Your task to perform on an android device: Open display settings Image 0: 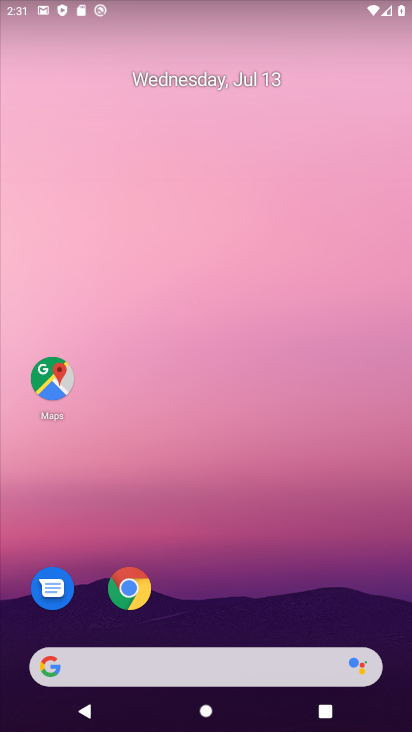
Step 0: drag from (214, 606) to (43, 15)
Your task to perform on an android device: Open display settings Image 1: 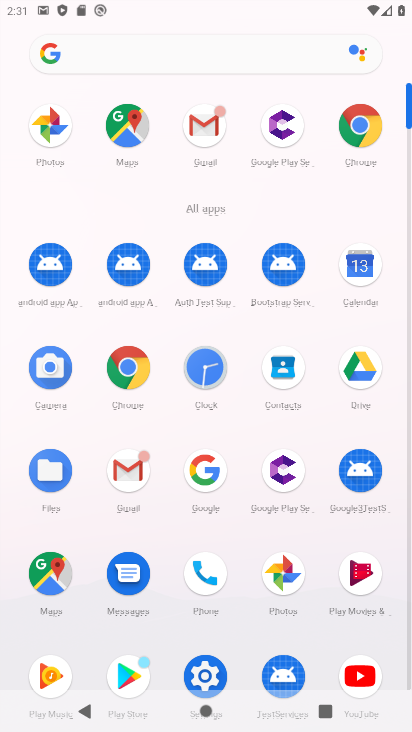
Step 1: click (201, 679)
Your task to perform on an android device: Open display settings Image 2: 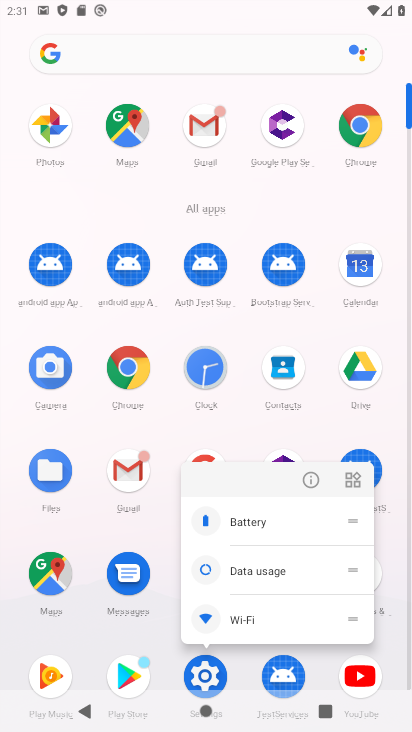
Step 2: click (205, 676)
Your task to perform on an android device: Open display settings Image 3: 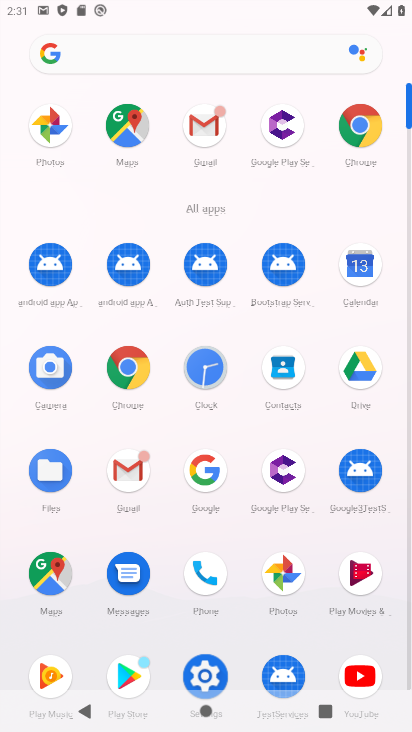
Step 3: click (205, 676)
Your task to perform on an android device: Open display settings Image 4: 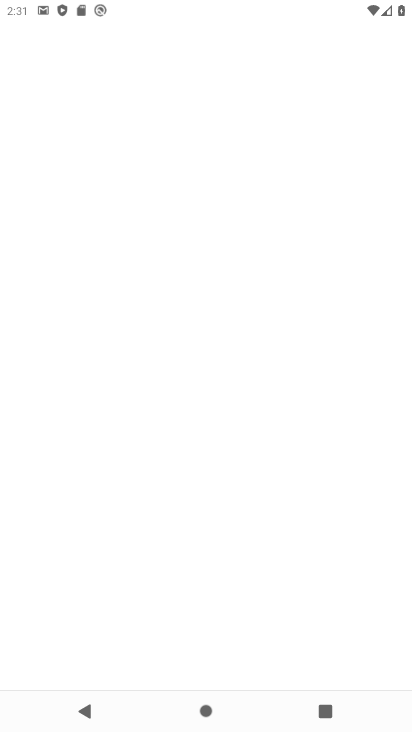
Step 4: click (202, 666)
Your task to perform on an android device: Open display settings Image 5: 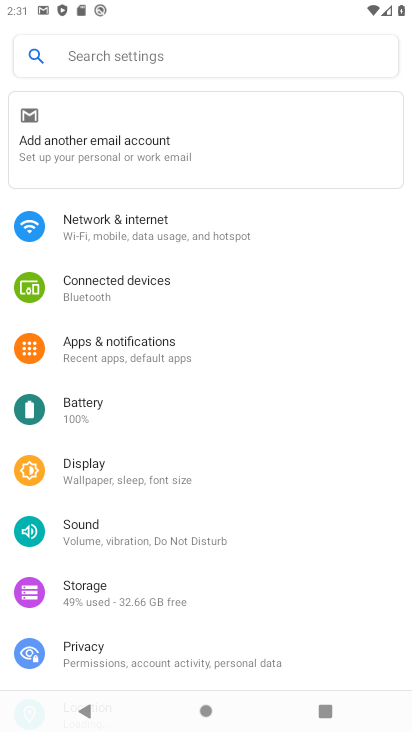
Step 5: click (104, 458)
Your task to perform on an android device: Open display settings Image 6: 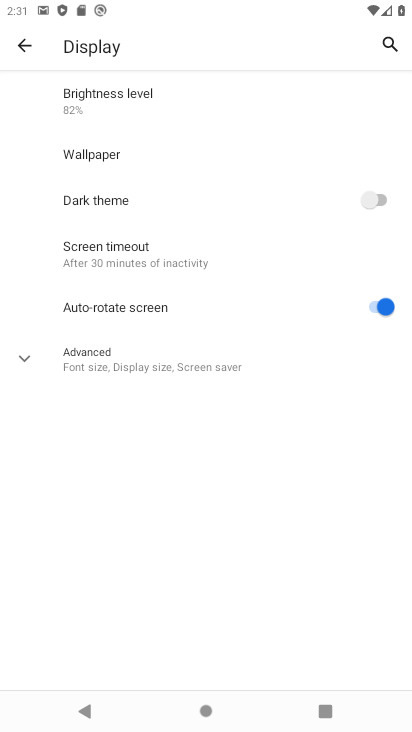
Step 6: task complete